Your task to perform on an android device: toggle notification dots Image 0: 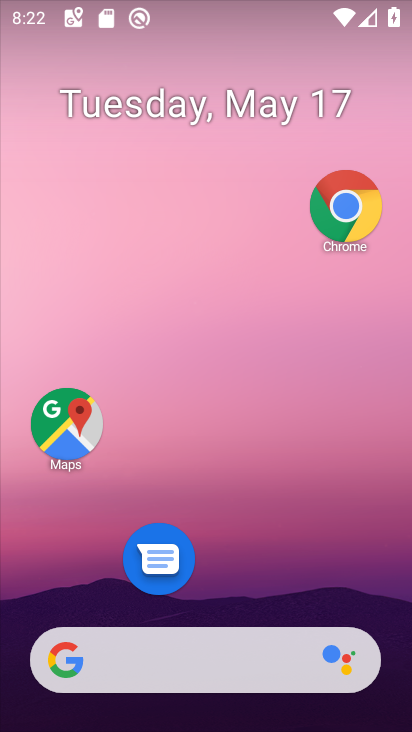
Step 0: drag from (294, 681) to (296, 150)
Your task to perform on an android device: toggle notification dots Image 1: 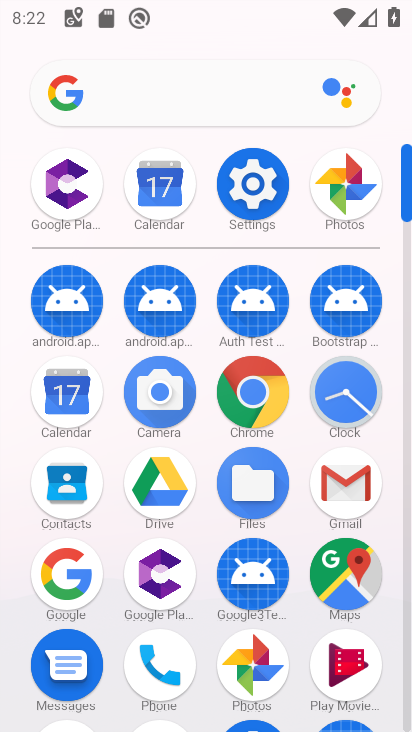
Step 1: click (269, 199)
Your task to perform on an android device: toggle notification dots Image 2: 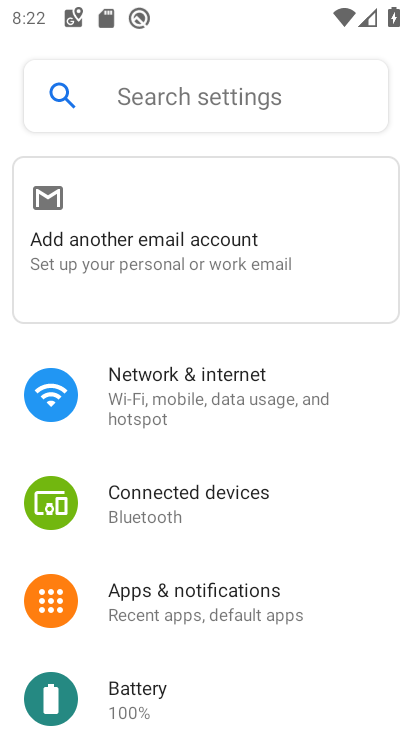
Step 2: click (260, 603)
Your task to perform on an android device: toggle notification dots Image 3: 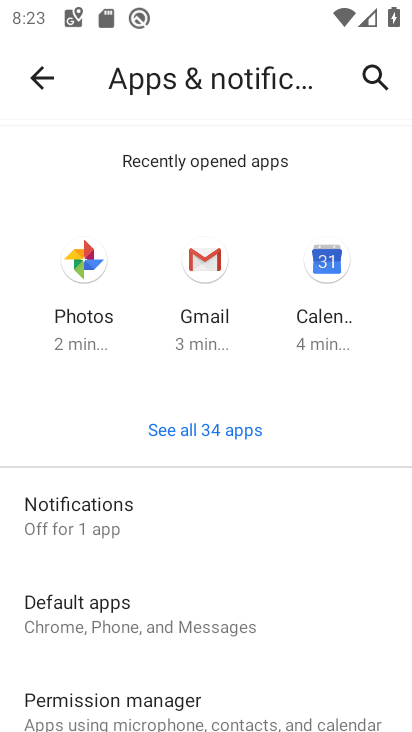
Step 3: drag from (261, 554) to (285, 345)
Your task to perform on an android device: toggle notification dots Image 4: 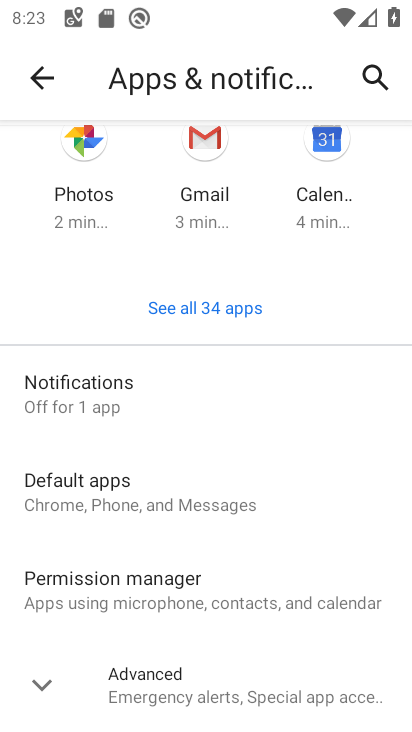
Step 4: click (201, 395)
Your task to perform on an android device: toggle notification dots Image 5: 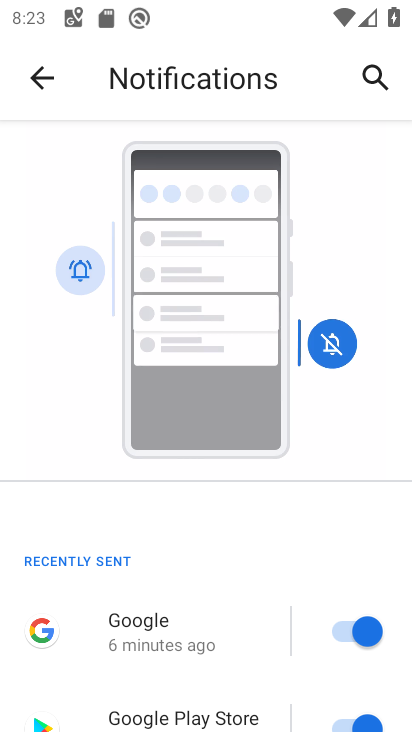
Step 5: drag from (120, 628) to (147, 301)
Your task to perform on an android device: toggle notification dots Image 6: 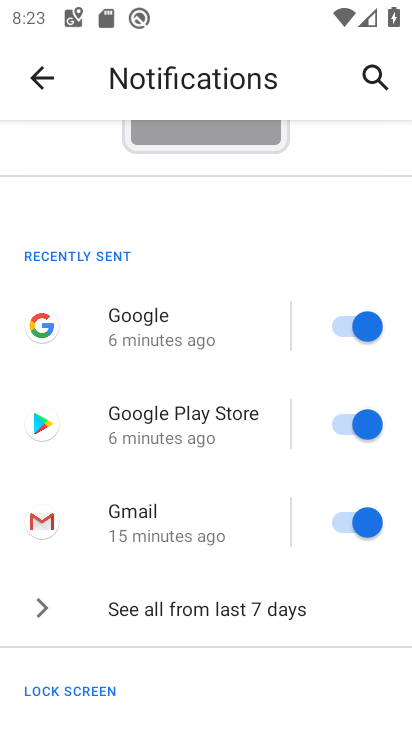
Step 6: drag from (303, 570) to (326, 226)
Your task to perform on an android device: toggle notification dots Image 7: 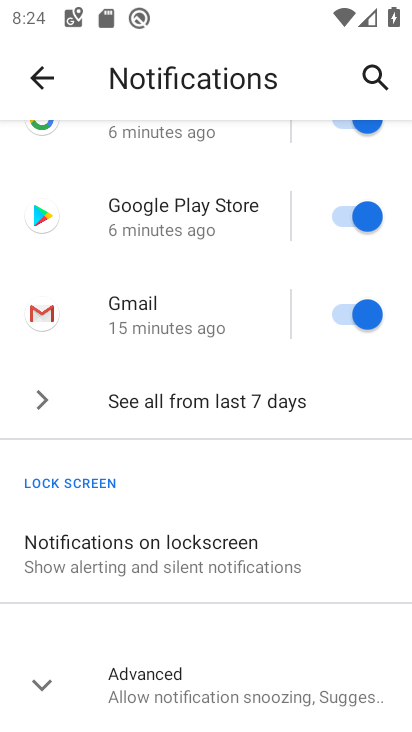
Step 7: click (161, 680)
Your task to perform on an android device: toggle notification dots Image 8: 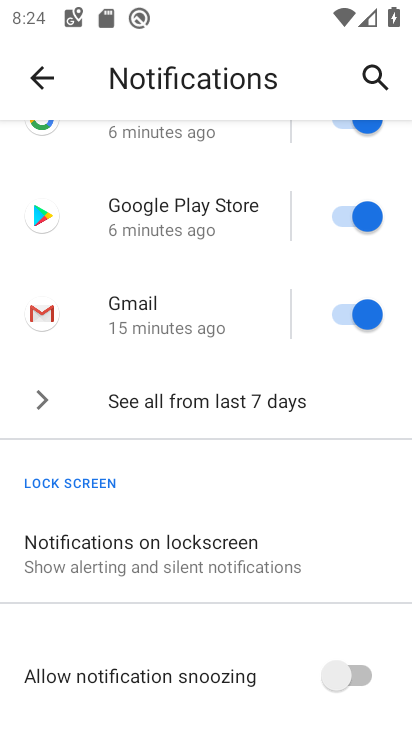
Step 8: drag from (194, 587) to (258, 253)
Your task to perform on an android device: toggle notification dots Image 9: 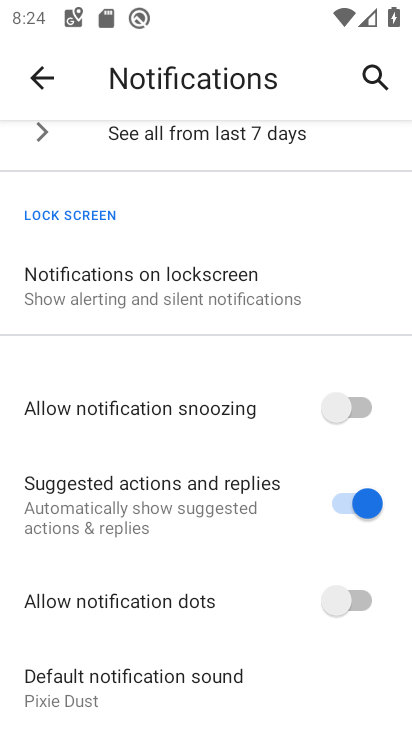
Step 9: click (361, 604)
Your task to perform on an android device: toggle notification dots Image 10: 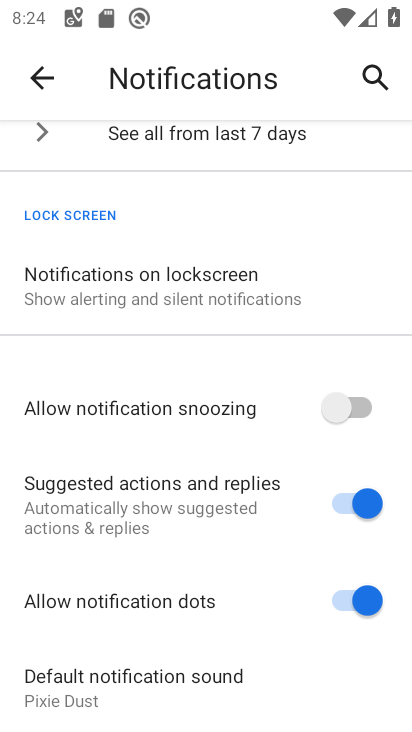
Step 10: task complete